Your task to perform on an android device: turn on notifications settings in the gmail app Image 0: 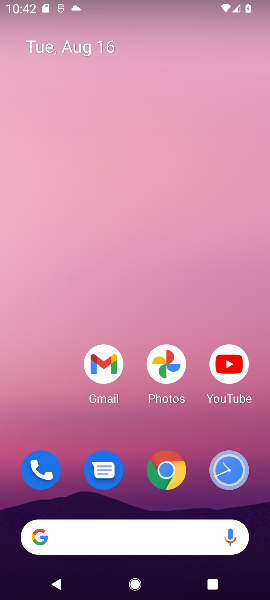
Step 0: click (109, 365)
Your task to perform on an android device: turn on notifications settings in the gmail app Image 1: 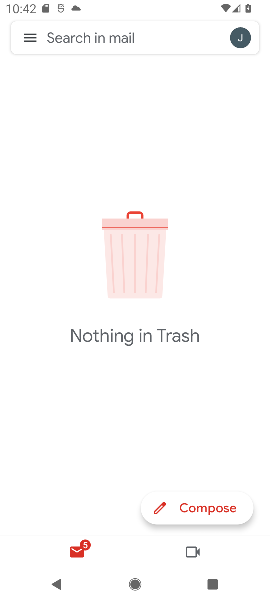
Step 1: click (29, 39)
Your task to perform on an android device: turn on notifications settings in the gmail app Image 2: 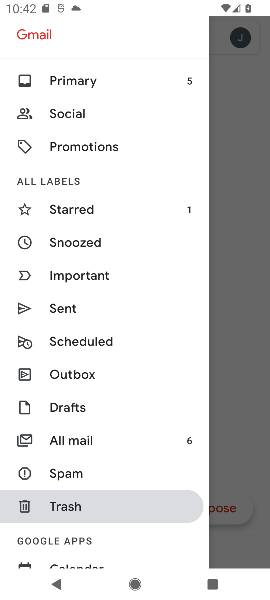
Step 2: drag from (139, 423) to (156, 215)
Your task to perform on an android device: turn on notifications settings in the gmail app Image 3: 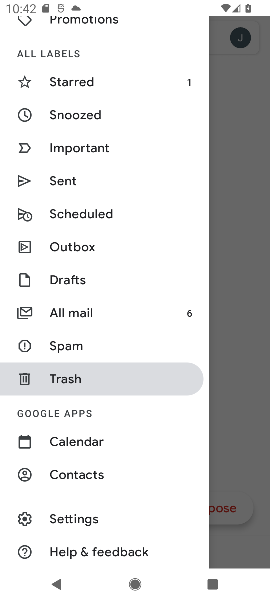
Step 3: click (82, 514)
Your task to perform on an android device: turn on notifications settings in the gmail app Image 4: 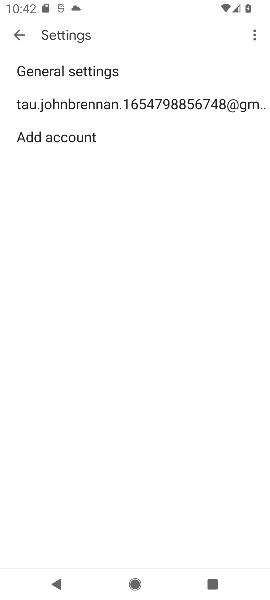
Step 4: click (179, 103)
Your task to perform on an android device: turn on notifications settings in the gmail app Image 5: 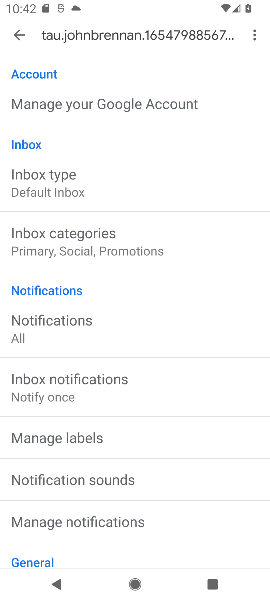
Step 5: click (104, 519)
Your task to perform on an android device: turn on notifications settings in the gmail app Image 6: 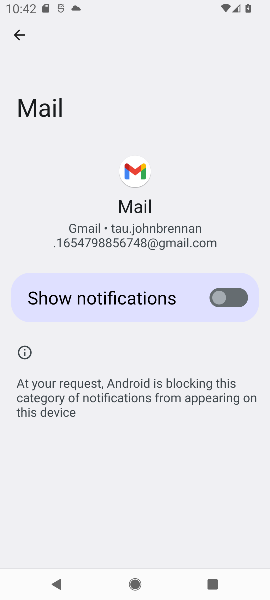
Step 6: click (236, 296)
Your task to perform on an android device: turn on notifications settings in the gmail app Image 7: 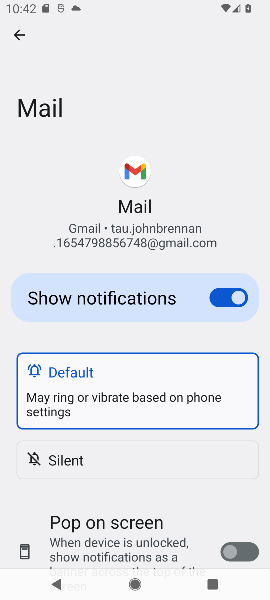
Step 7: task complete